Your task to perform on an android device: Turn off the flashlight Image 0: 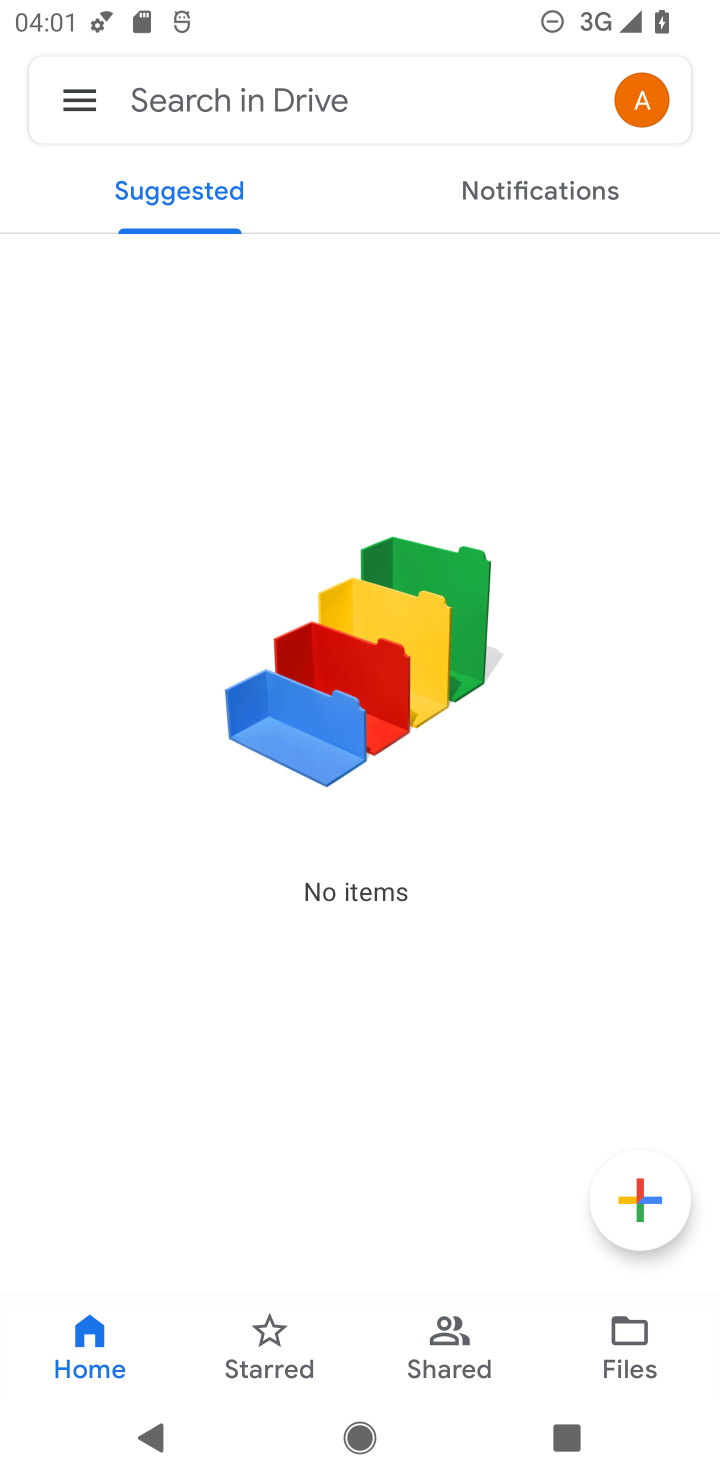
Step 0: press home button
Your task to perform on an android device: Turn off the flashlight Image 1: 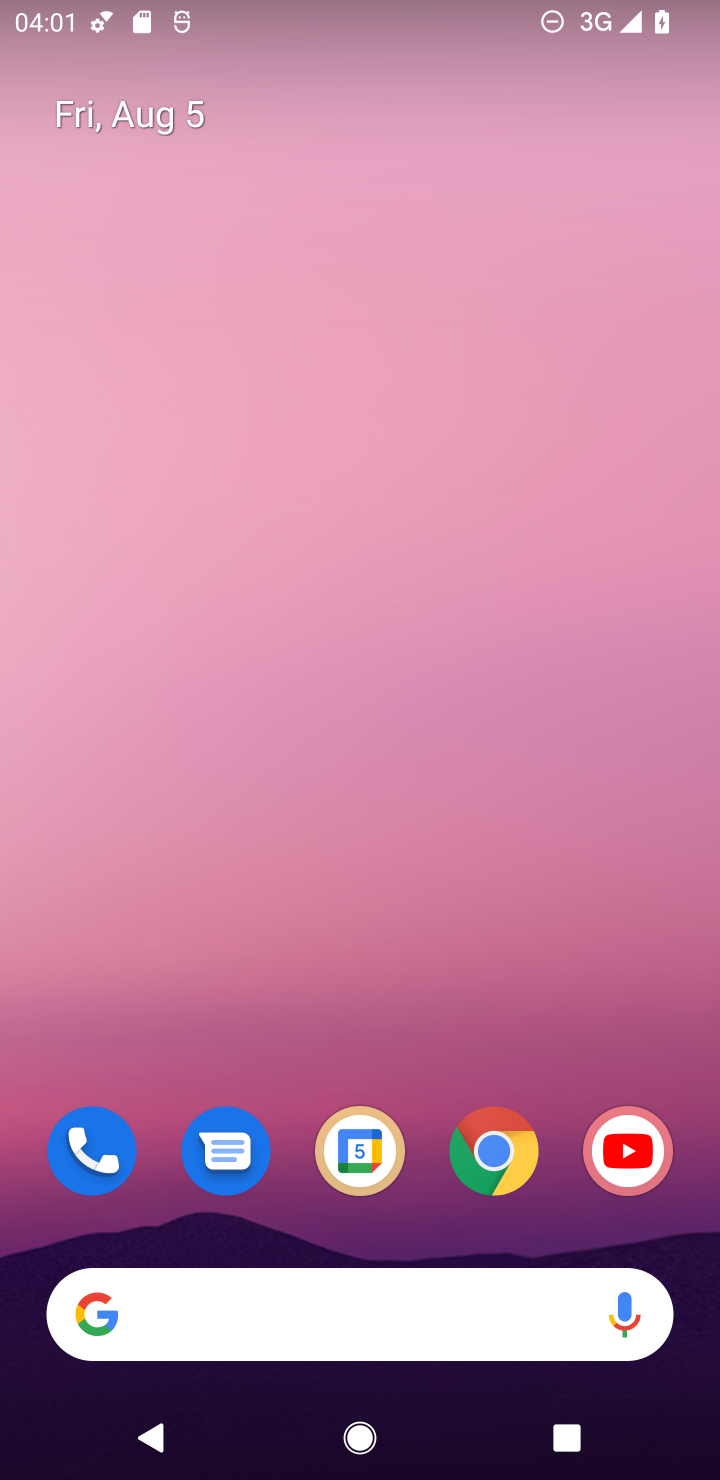
Step 1: drag from (335, 158) to (427, 56)
Your task to perform on an android device: Turn off the flashlight Image 2: 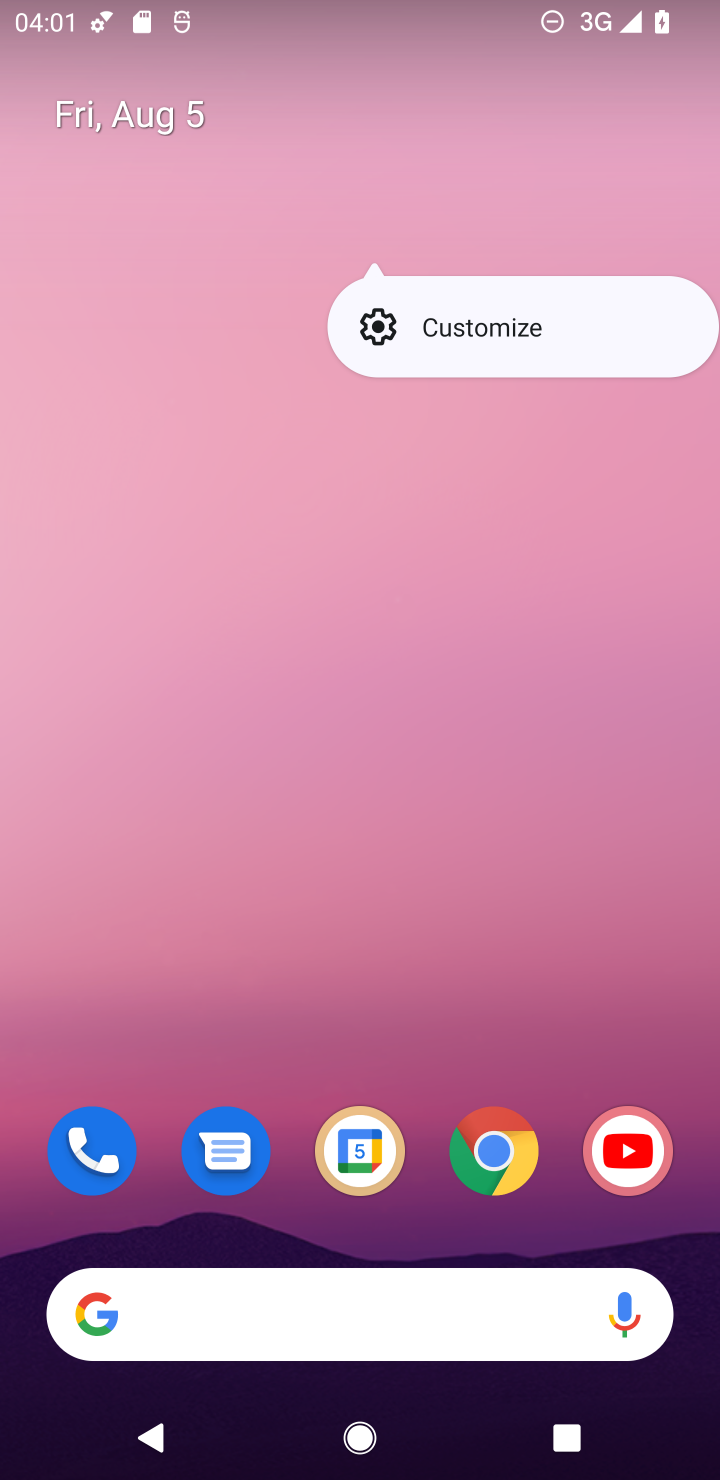
Step 2: click (410, 953)
Your task to perform on an android device: Turn off the flashlight Image 3: 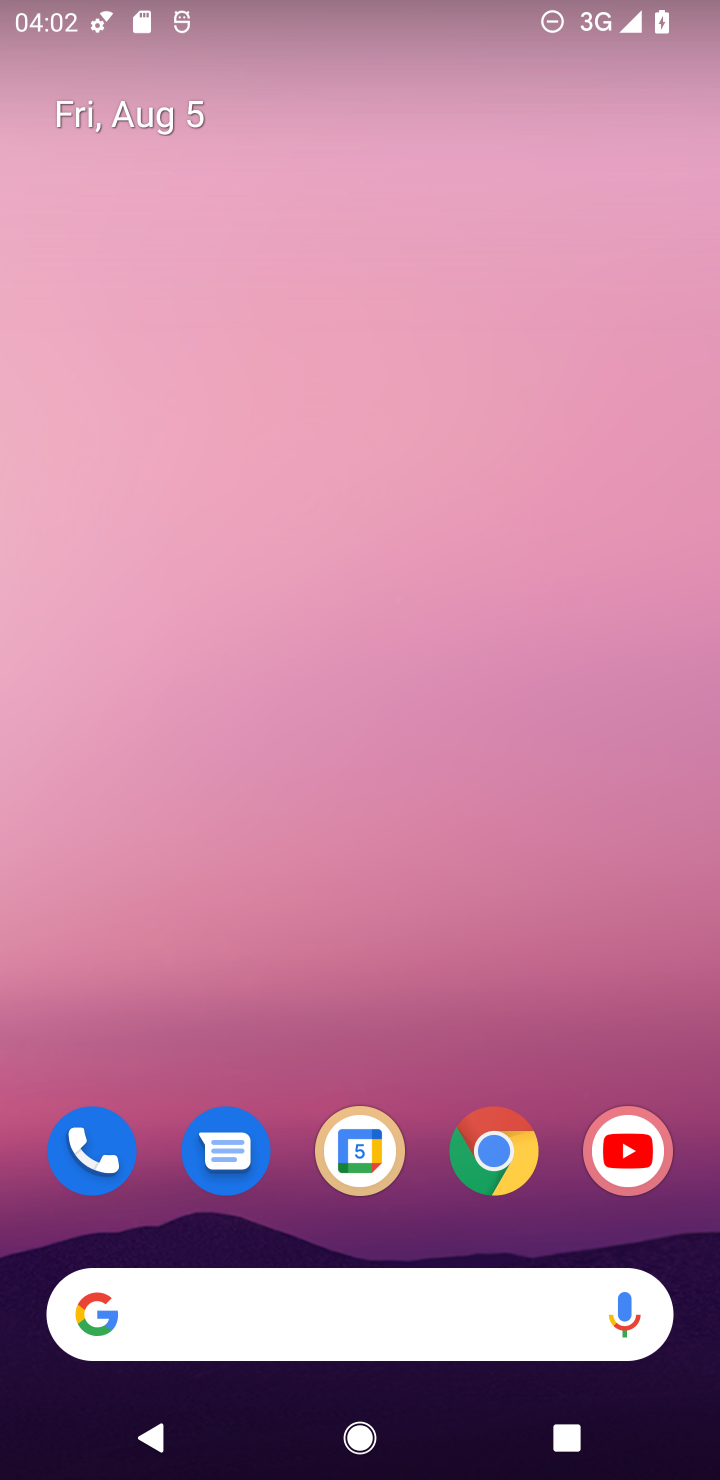
Step 3: drag from (410, 985) to (385, 354)
Your task to perform on an android device: Turn off the flashlight Image 4: 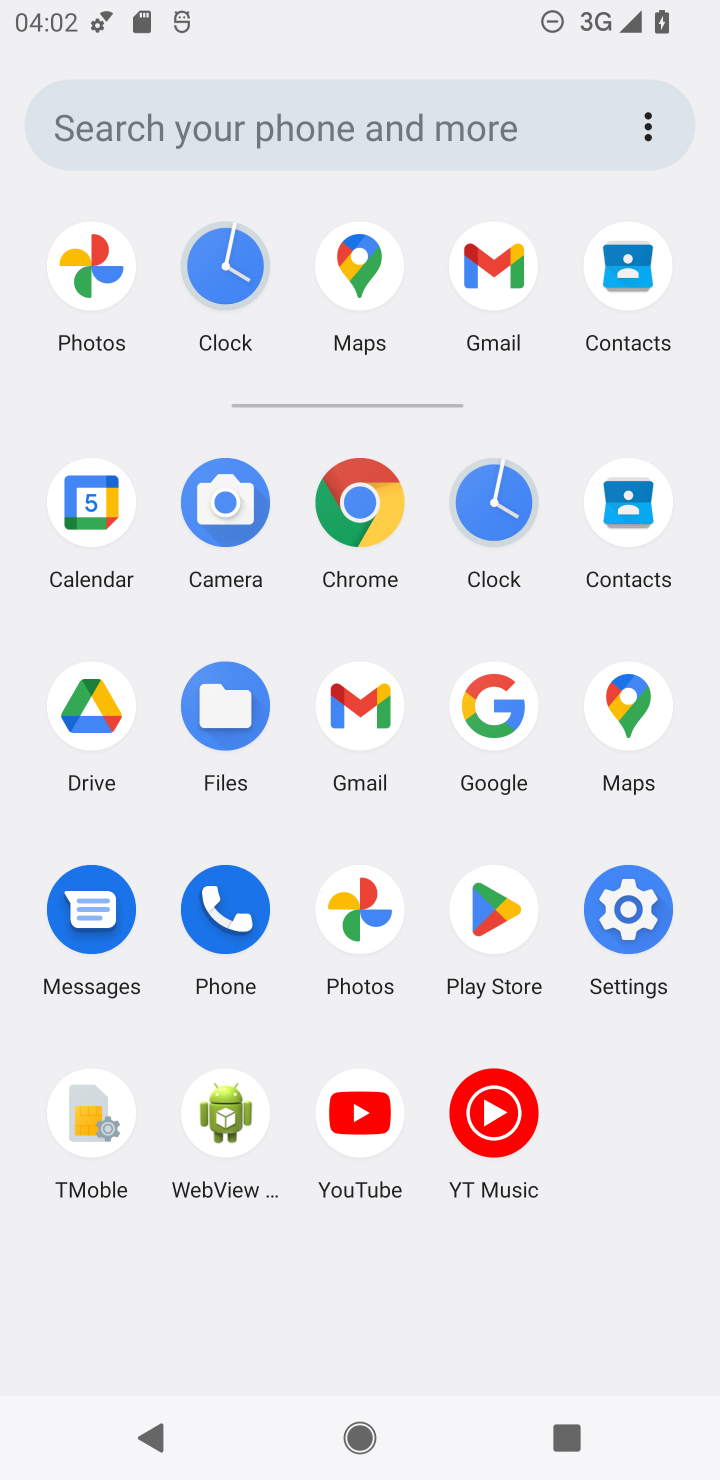
Step 4: click (640, 899)
Your task to perform on an android device: Turn off the flashlight Image 5: 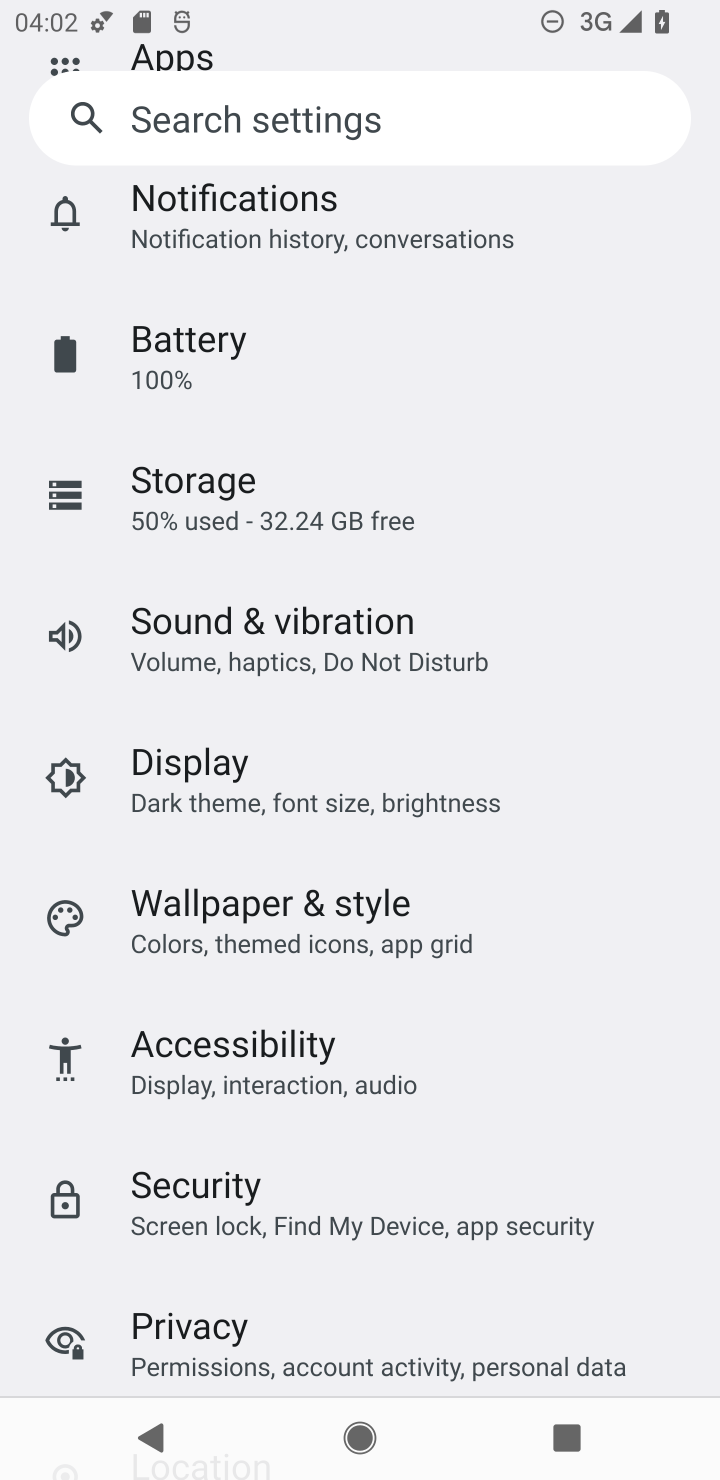
Step 5: task complete